Your task to perform on an android device: Go to ESPN.com Image 0: 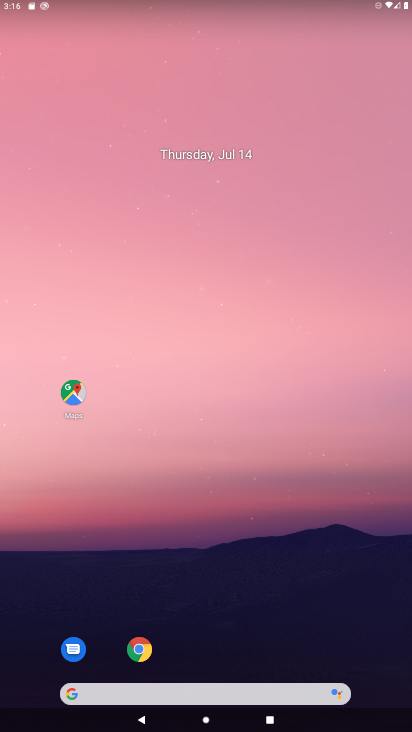
Step 0: click (136, 641)
Your task to perform on an android device: Go to ESPN.com Image 1: 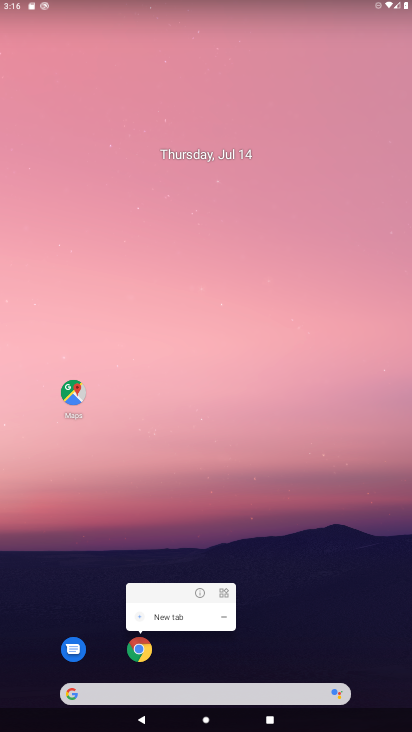
Step 1: click (263, 500)
Your task to perform on an android device: Go to ESPN.com Image 2: 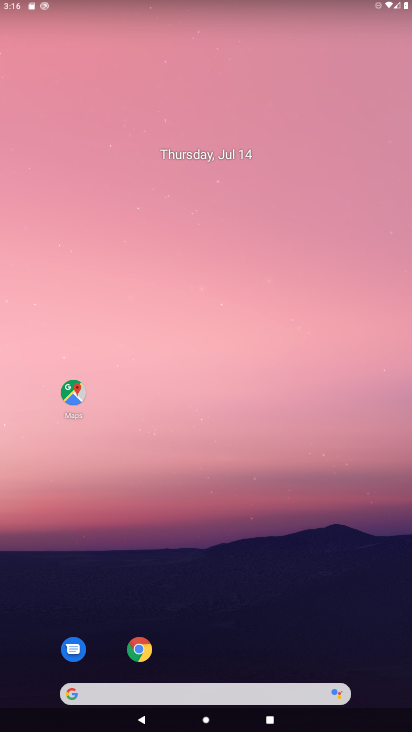
Step 2: drag from (298, 619) to (296, 245)
Your task to perform on an android device: Go to ESPN.com Image 3: 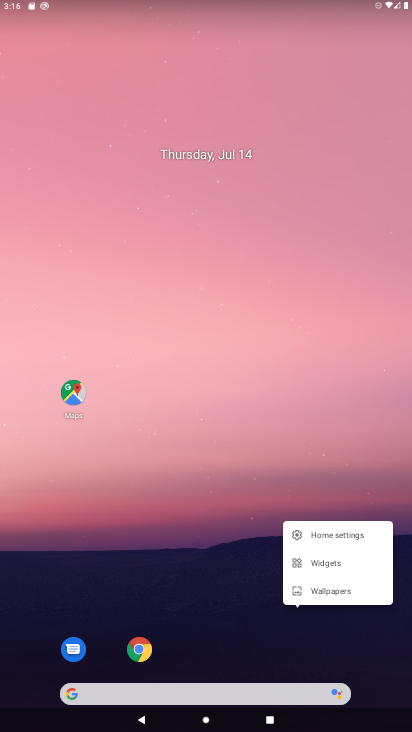
Step 3: click (180, 512)
Your task to perform on an android device: Go to ESPN.com Image 4: 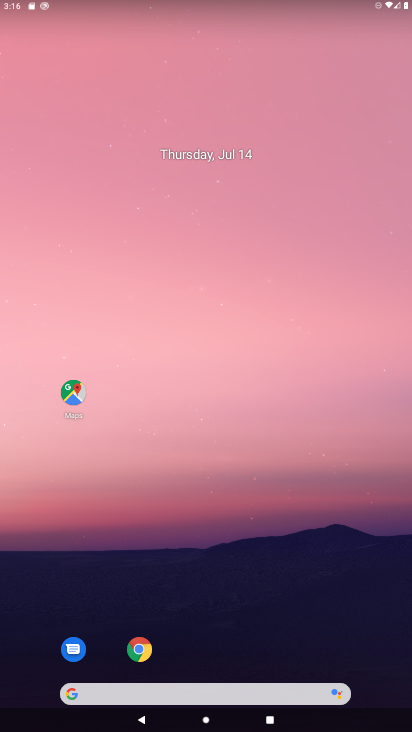
Step 4: drag from (234, 608) to (241, 137)
Your task to perform on an android device: Go to ESPN.com Image 5: 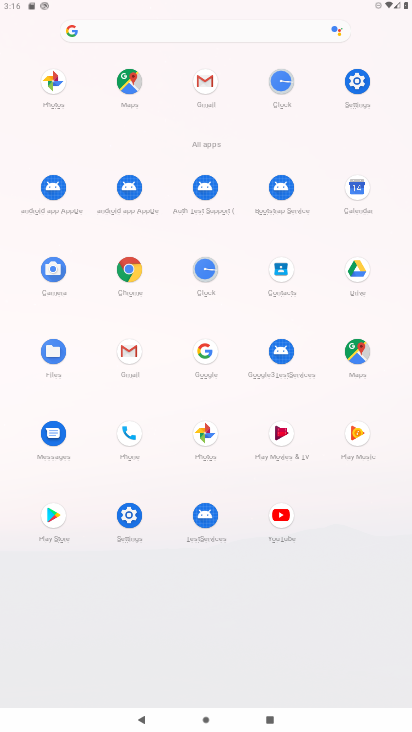
Step 5: drag from (227, 560) to (253, 233)
Your task to perform on an android device: Go to ESPN.com Image 6: 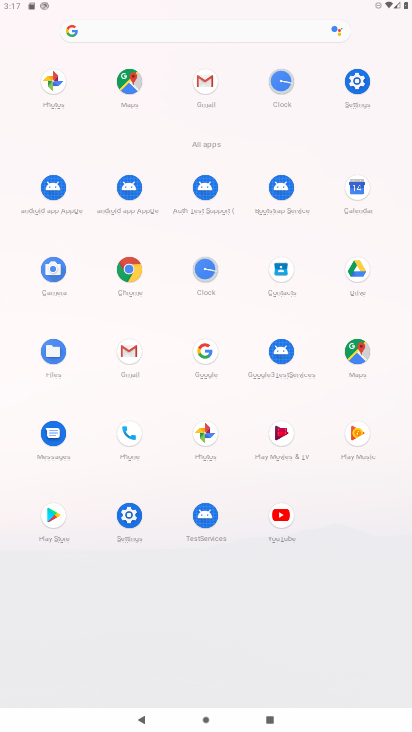
Step 6: click (134, 266)
Your task to perform on an android device: Go to ESPN.com Image 7: 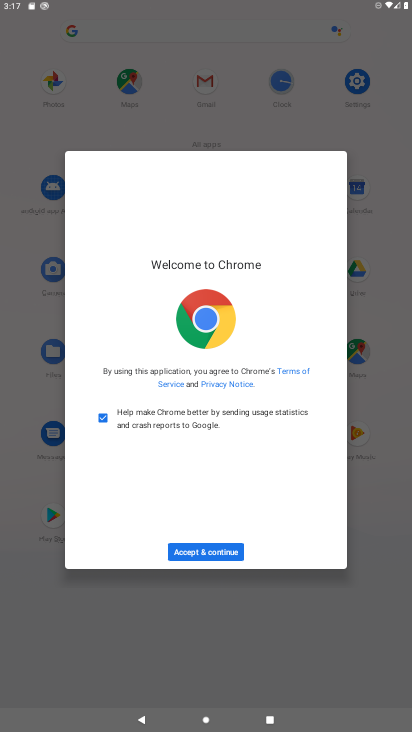
Step 7: click (197, 550)
Your task to perform on an android device: Go to ESPN.com Image 8: 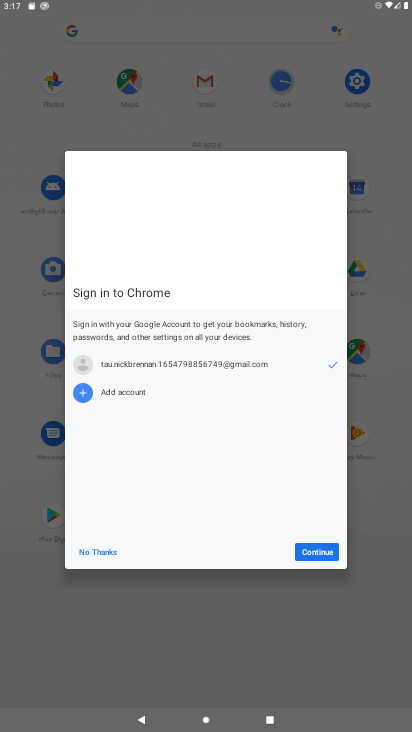
Step 8: click (323, 538)
Your task to perform on an android device: Go to ESPN.com Image 9: 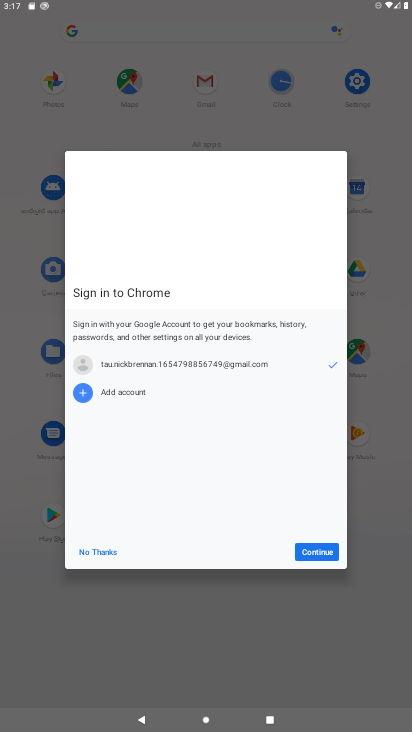
Step 9: click (313, 548)
Your task to perform on an android device: Go to ESPN.com Image 10: 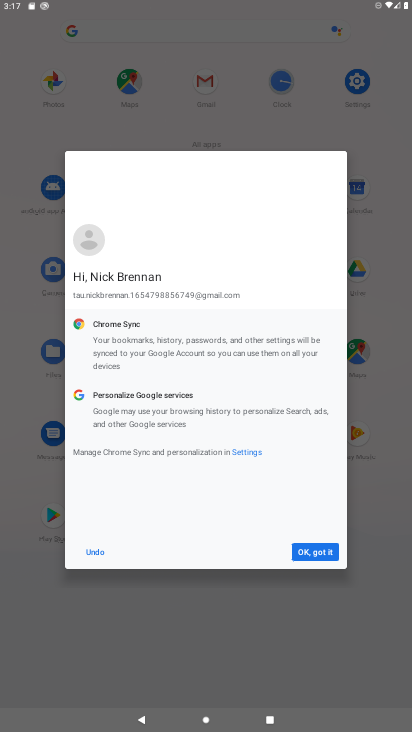
Step 10: click (331, 555)
Your task to perform on an android device: Go to ESPN.com Image 11: 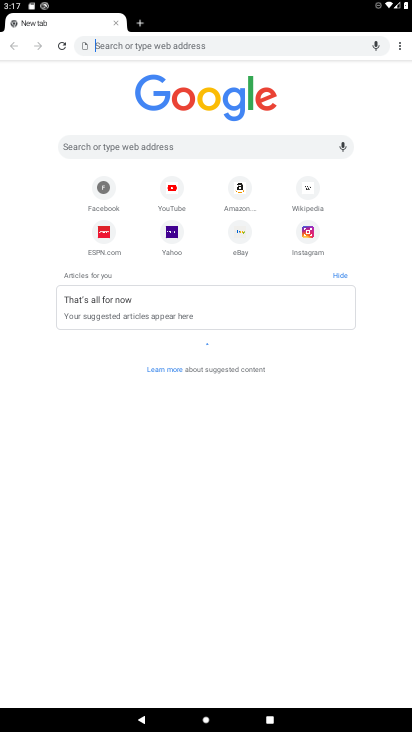
Step 11: click (106, 228)
Your task to perform on an android device: Go to ESPN.com Image 12: 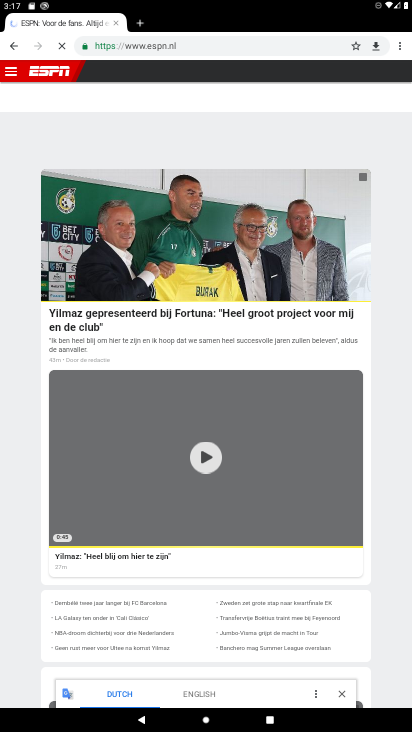
Step 12: task complete